Your task to perform on an android device: Do I have any events this weekend? Image 0: 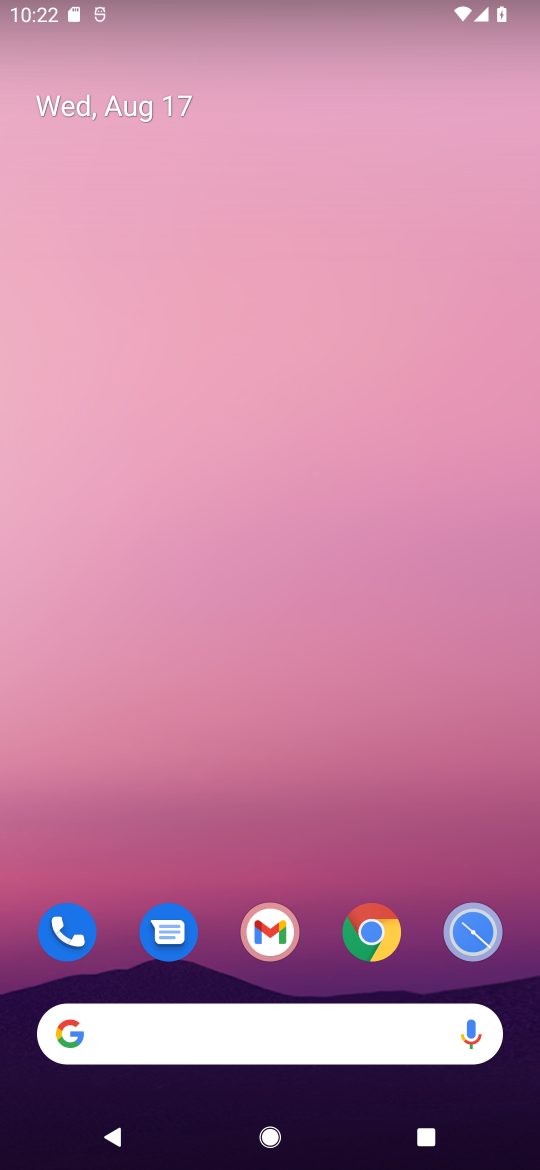
Step 0: drag from (324, 926) to (324, 147)
Your task to perform on an android device: Do I have any events this weekend? Image 1: 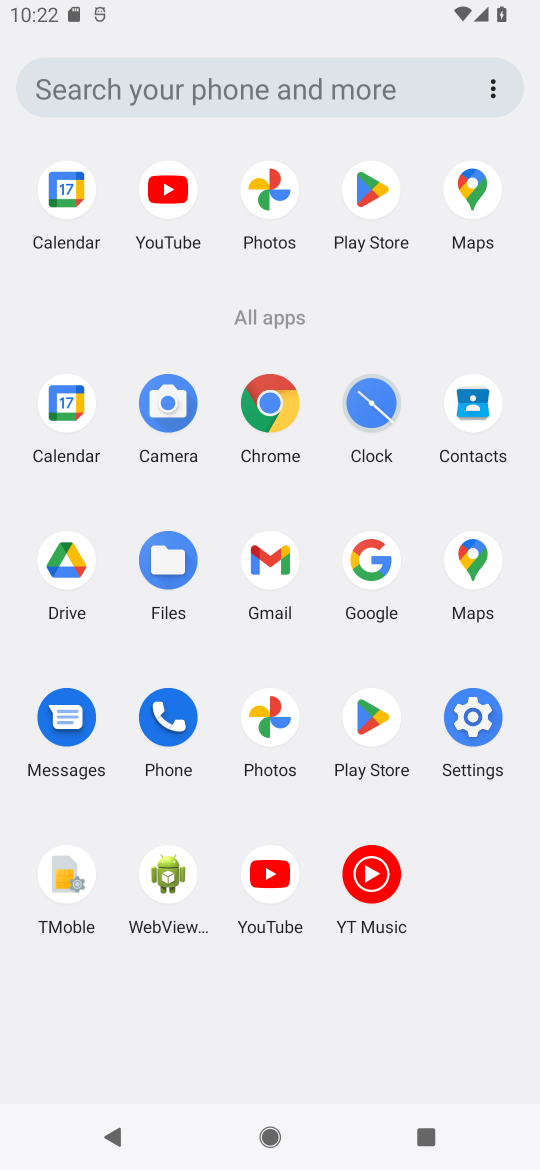
Step 1: click (62, 416)
Your task to perform on an android device: Do I have any events this weekend? Image 2: 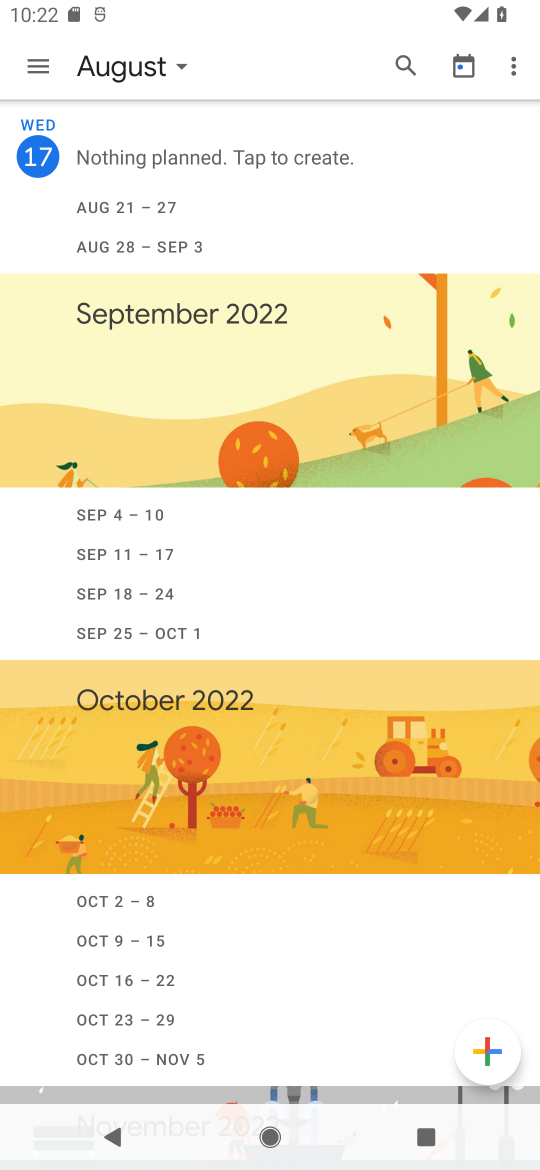
Step 2: click (179, 69)
Your task to perform on an android device: Do I have any events this weekend? Image 3: 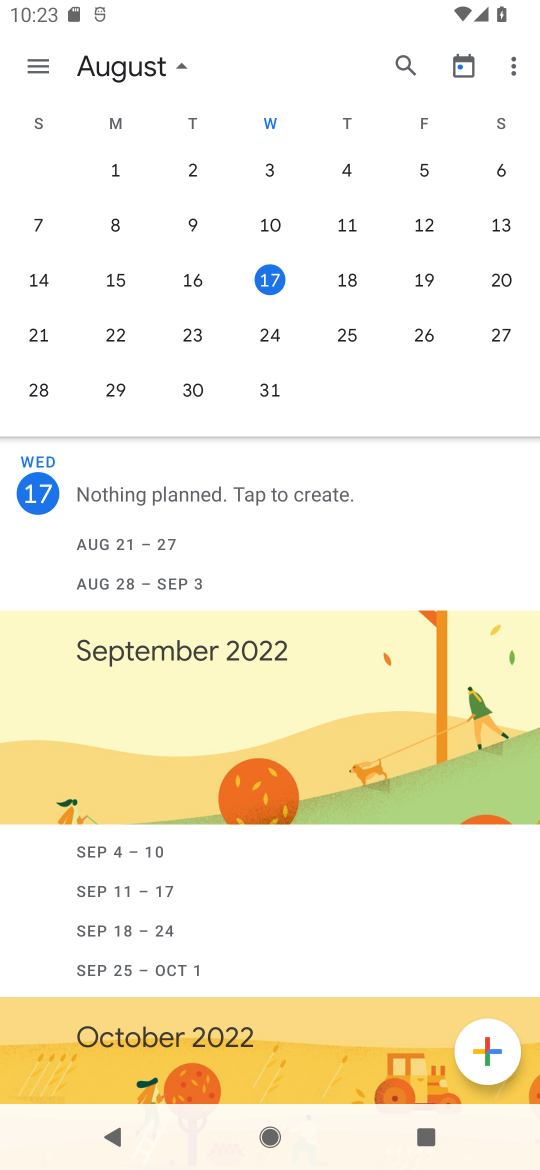
Step 3: click (498, 277)
Your task to perform on an android device: Do I have any events this weekend? Image 4: 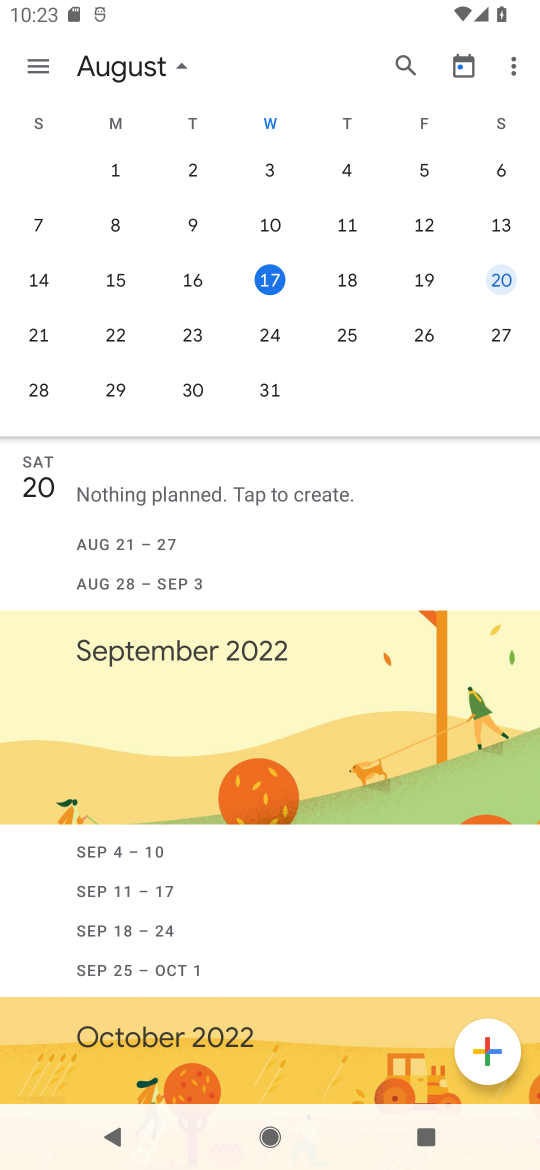
Step 4: click (40, 61)
Your task to perform on an android device: Do I have any events this weekend? Image 5: 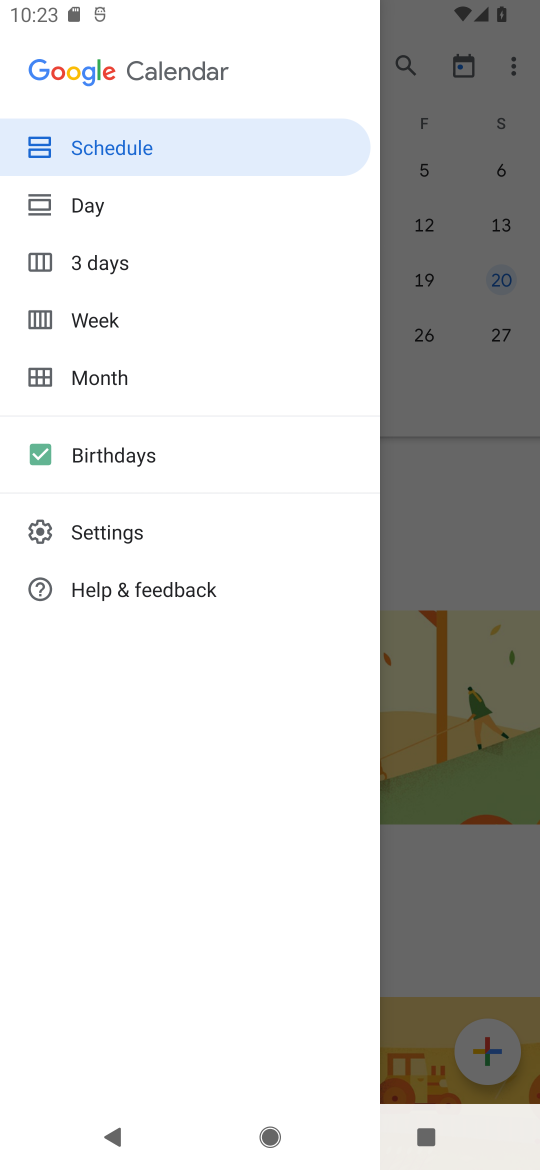
Step 5: click (111, 312)
Your task to perform on an android device: Do I have any events this weekend? Image 6: 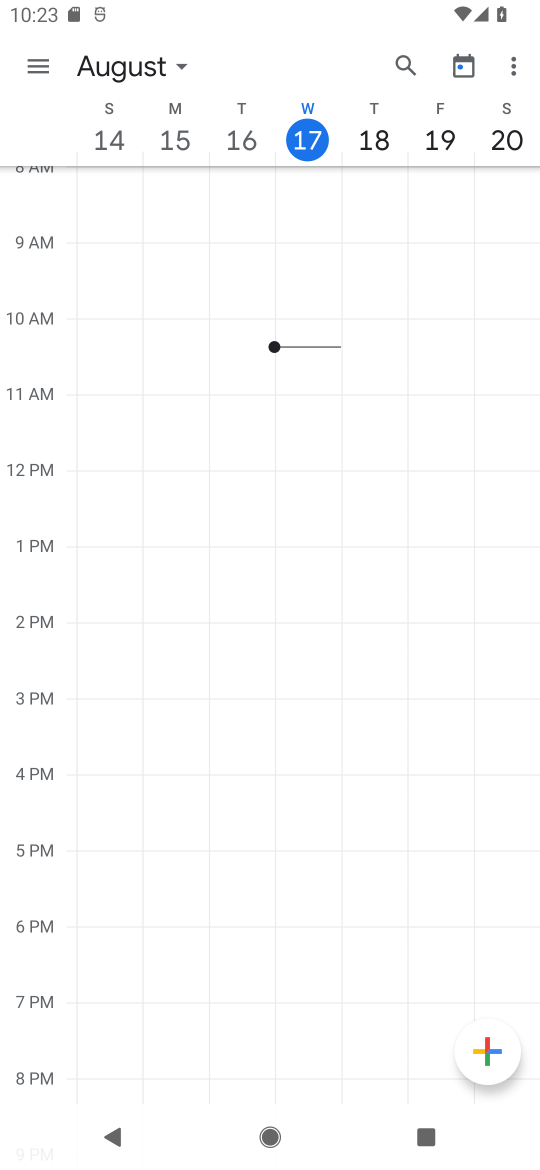
Step 6: task complete